Your task to perform on an android device: turn pop-ups off in chrome Image 0: 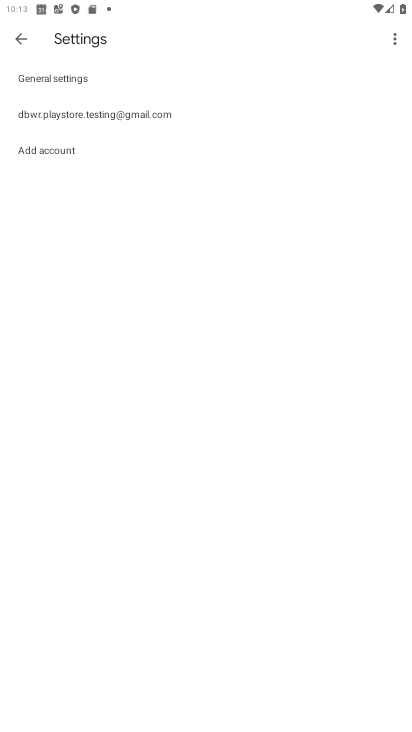
Step 0: press home button
Your task to perform on an android device: turn pop-ups off in chrome Image 1: 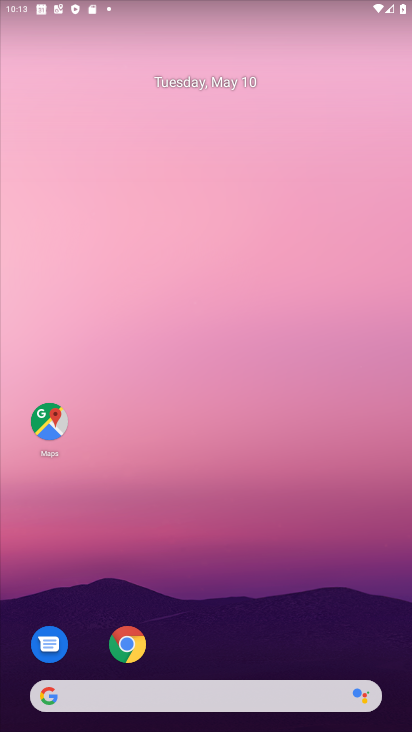
Step 1: drag from (318, 587) to (304, 165)
Your task to perform on an android device: turn pop-ups off in chrome Image 2: 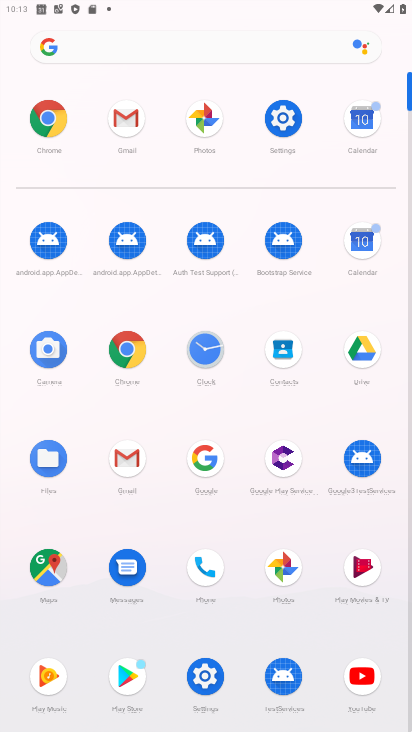
Step 2: click (54, 130)
Your task to perform on an android device: turn pop-ups off in chrome Image 3: 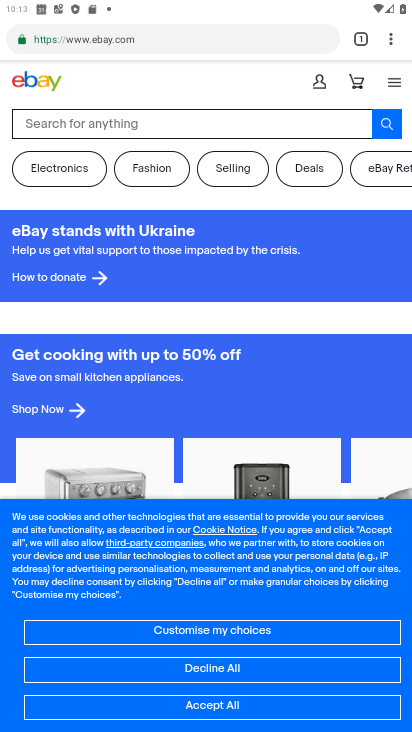
Step 3: click (391, 41)
Your task to perform on an android device: turn pop-ups off in chrome Image 4: 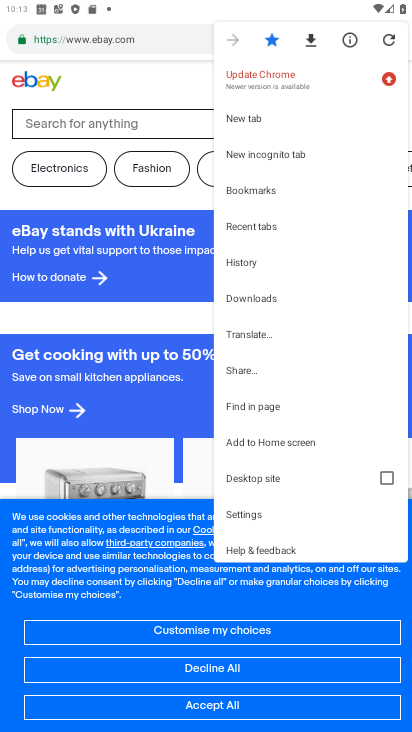
Step 4: drag from (317, 391) to (332, 137)
Your task to perform on an android device: turn pop-ups off in chrome Image 5: 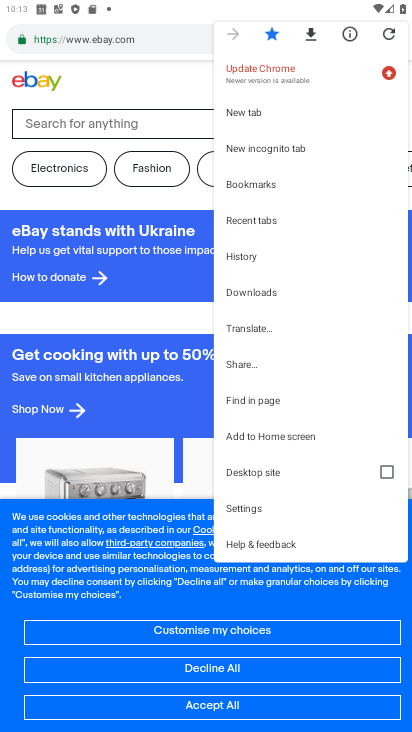
Step 5: click (278, 509)
Your task to perform on an android device: turn pop-ups off in chrome Image 6: 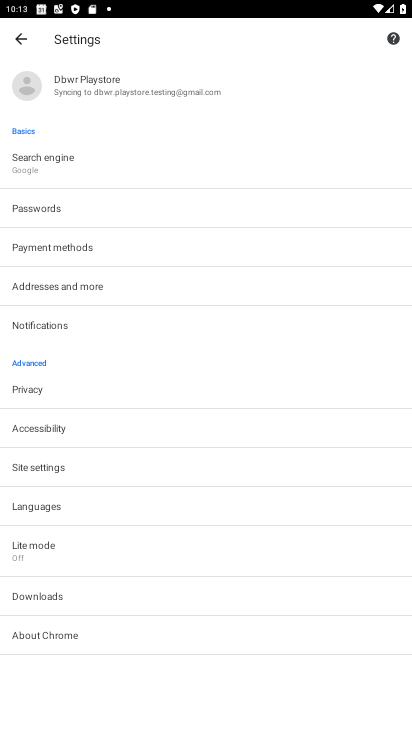
Step 6: click (93, 468)
Your task to perform on an android device: turn pop-ups off in chrome Image 7: 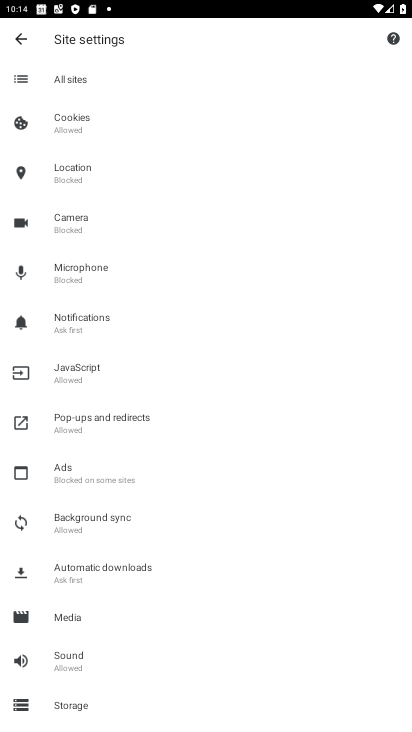
Step 7: click (142, 428)
Your task to perform on an android device: turn pop-ups off in chrome Image 8: 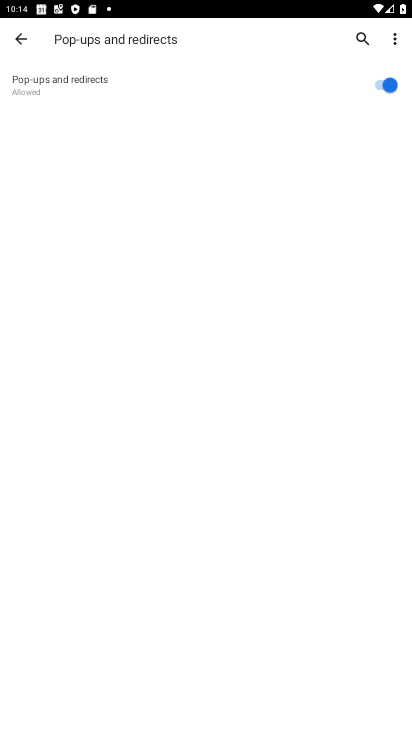
Step 8: click (376, 88)
Your task to perform on an android device: turn pop-ups off in chrome Image 9: 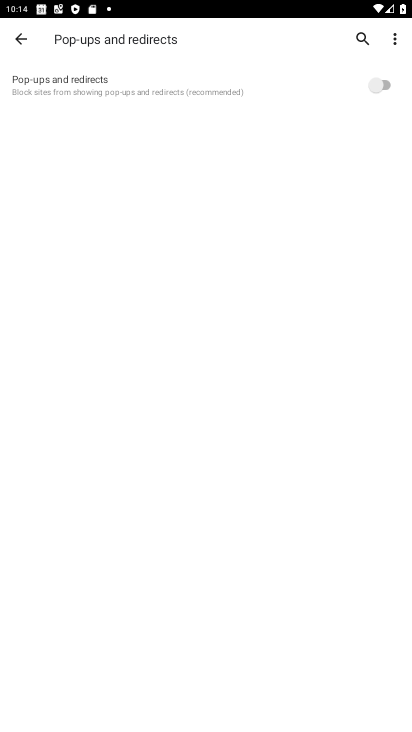
Step 9: task complete